Your task to perform on an android device: What's on my calendar today? Image 0: 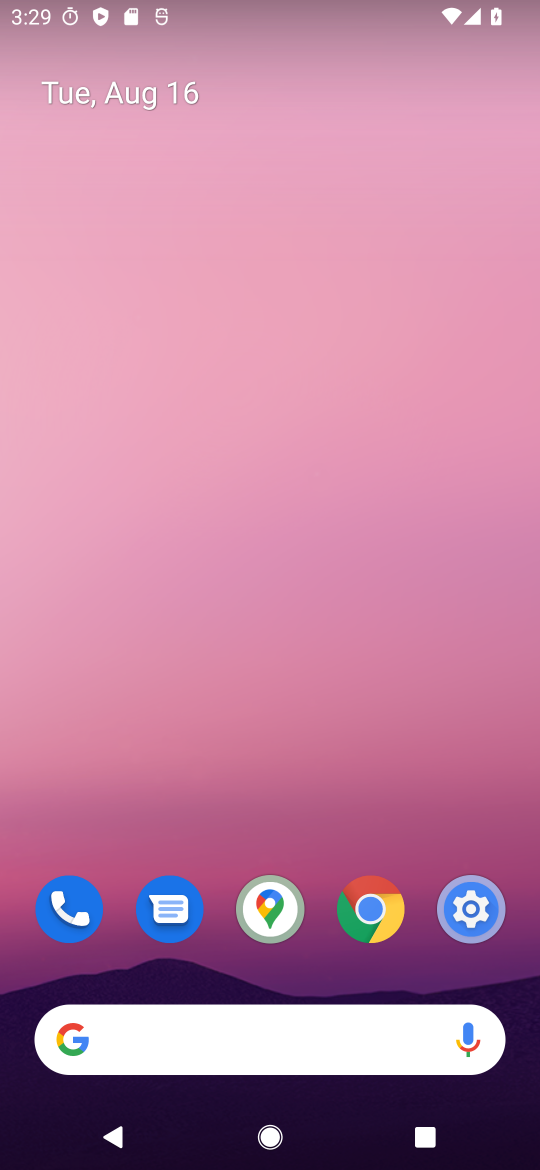
Step 0: drag from (217, 877) to (245, 143)
Your task to perform on an android device: What's on my calendar today? Image 1: 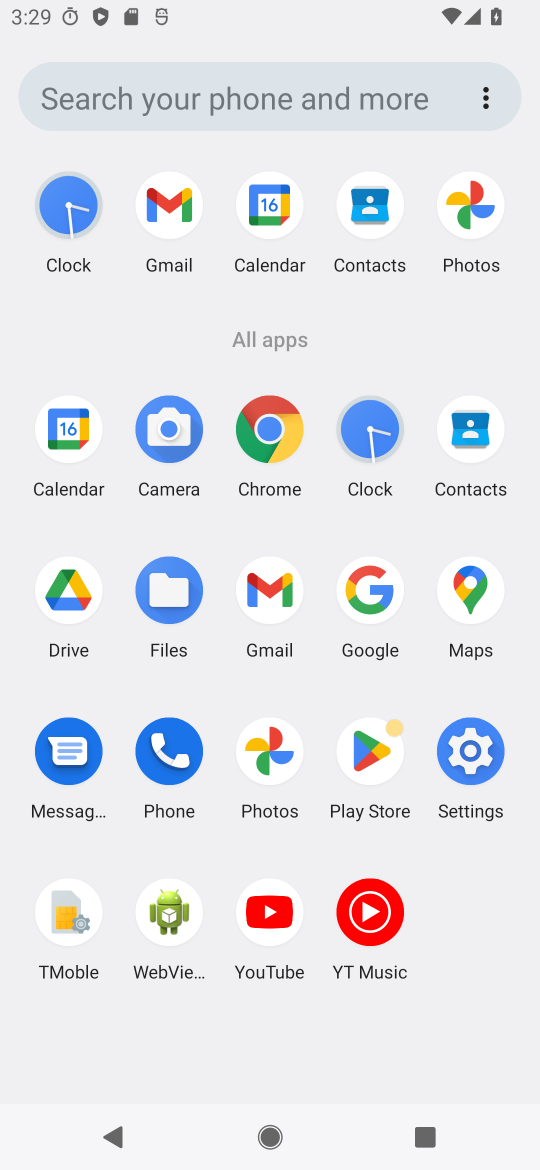
Step 1: click (74, 461)
Your task to perform on an android device: What's on my calendar today? Image 2: 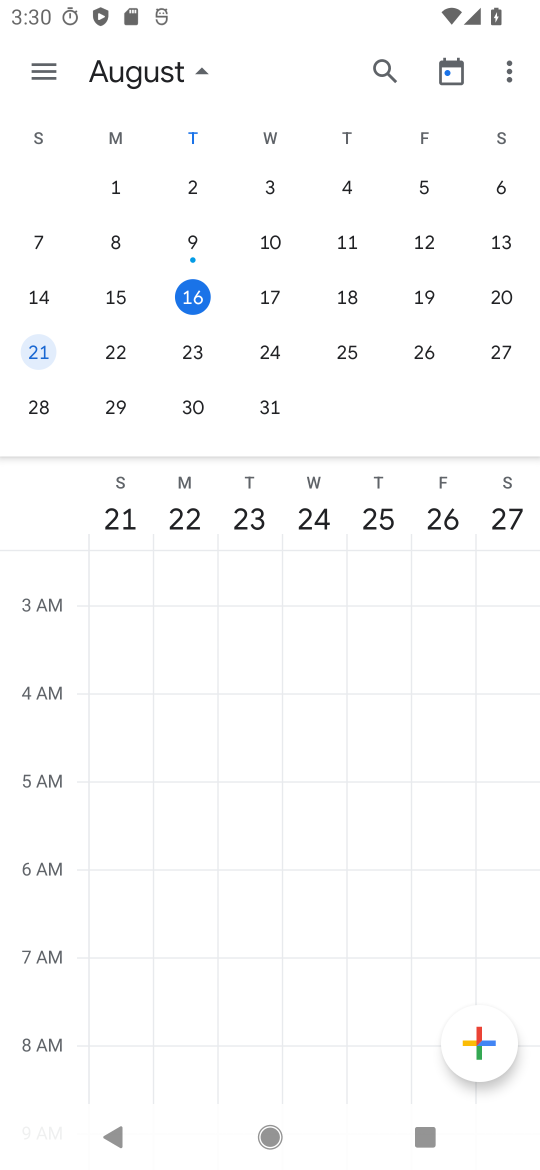
Step 2: click (152, 73)
Your task to perform on an android device: What's on my calendar today? Image 3: 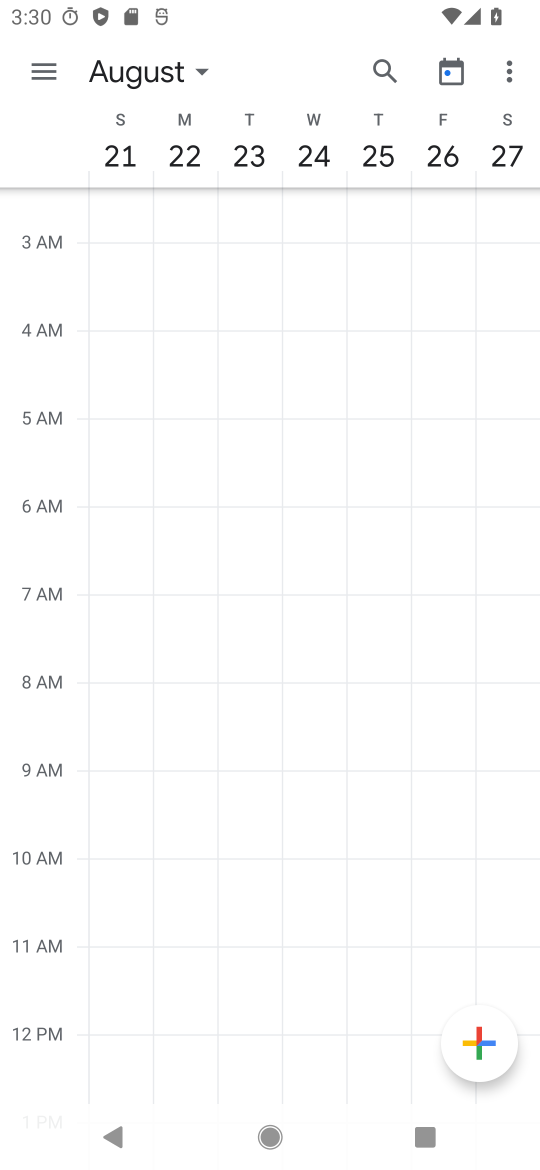
Step 3: click (152, 73)
Your task to perform on an android device: What's on my calendar today? Image 4: 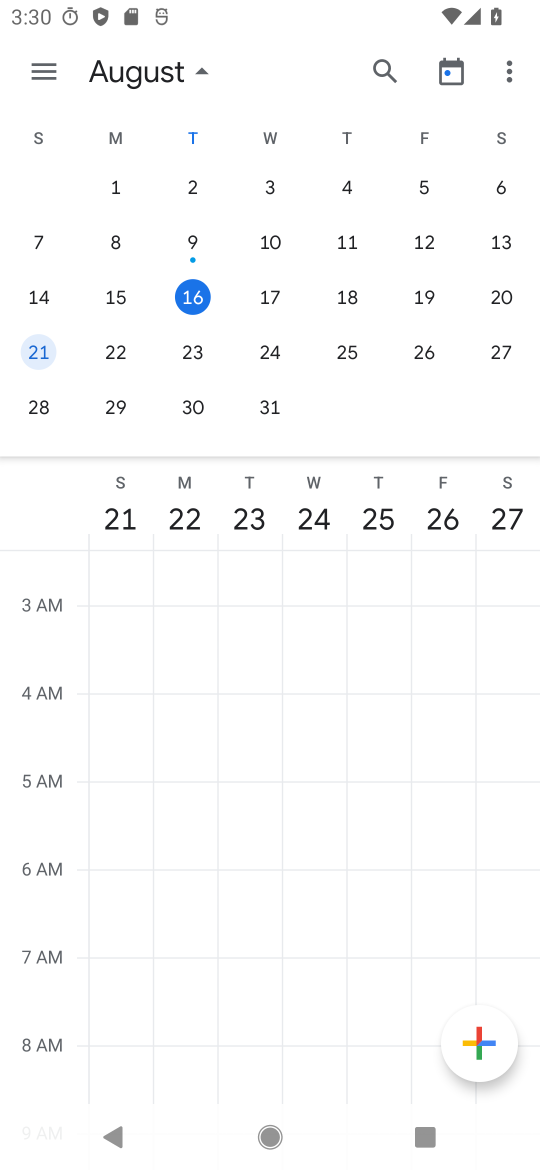
Step 4: click (198, 294)
Your task to perform on an android device: What's on my calendar today? Image 5: 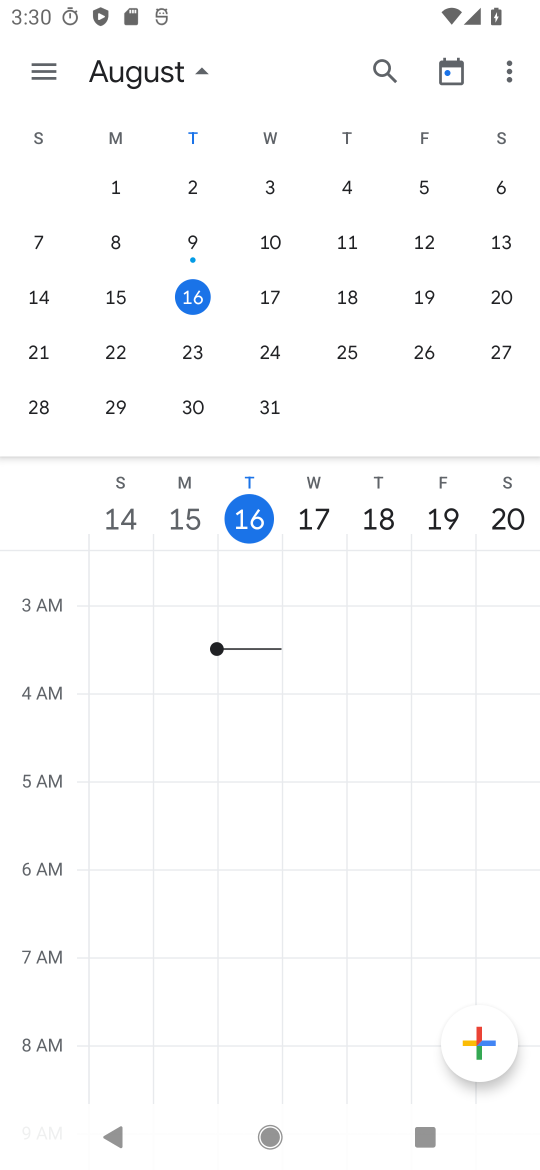
Step 5: task complete